Your task to perform on an android device: open app "Reddit" (install if not already installed), go to login, and select forgot password Image 0: 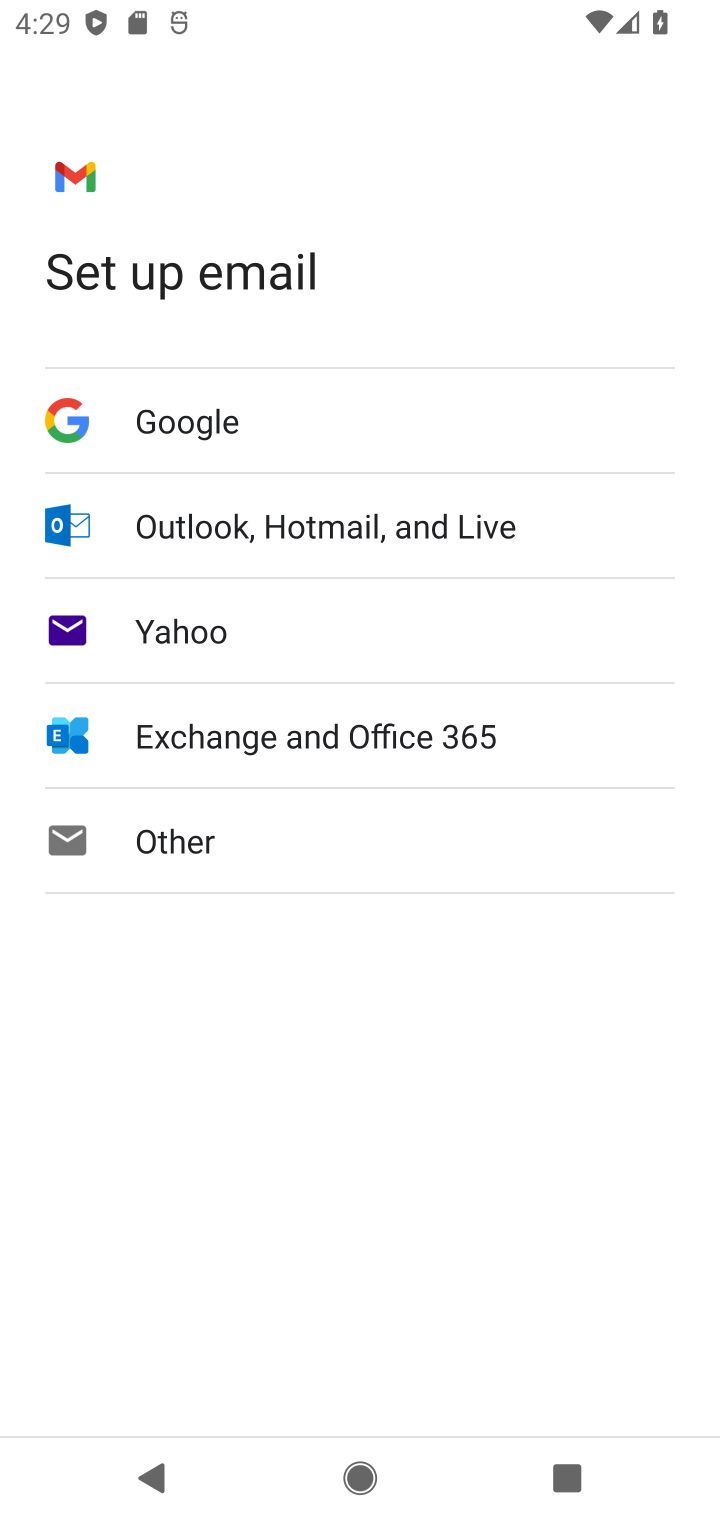
Step 0: press home button
Your task to perform on an android device: open app "Reddit" (install if not already installed), go to login, and select forgot password Image 1: 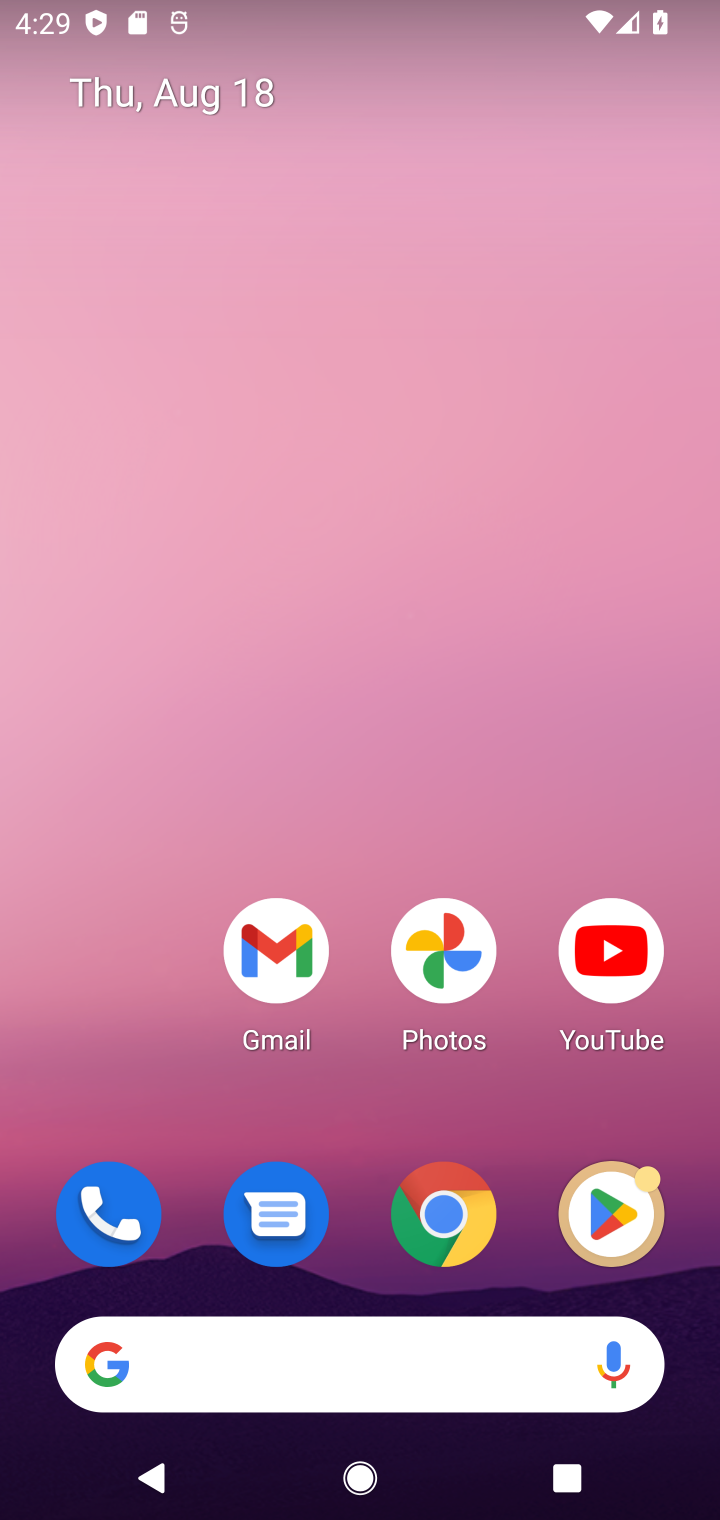
Step 1: drag from (318, 844) to (435, 152)
Your task to perform on an android device: open app "Reddit" (install if not already installed), go to login, and select forgot password Image 2: 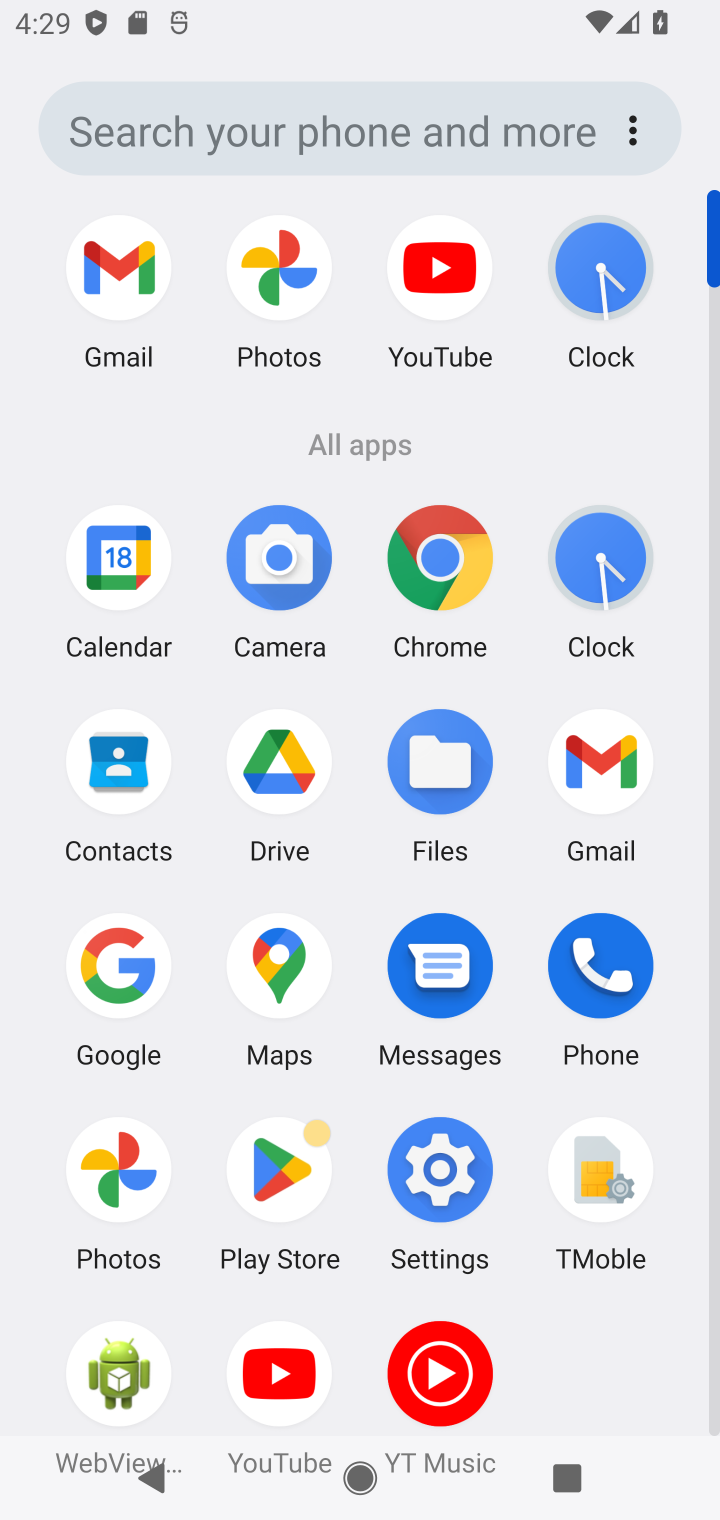
Step 2: click (296, 1200)
Your task to perform on an android device: open app "Reddit" (install if not already installed), go to login, and select forgot password Image 3: 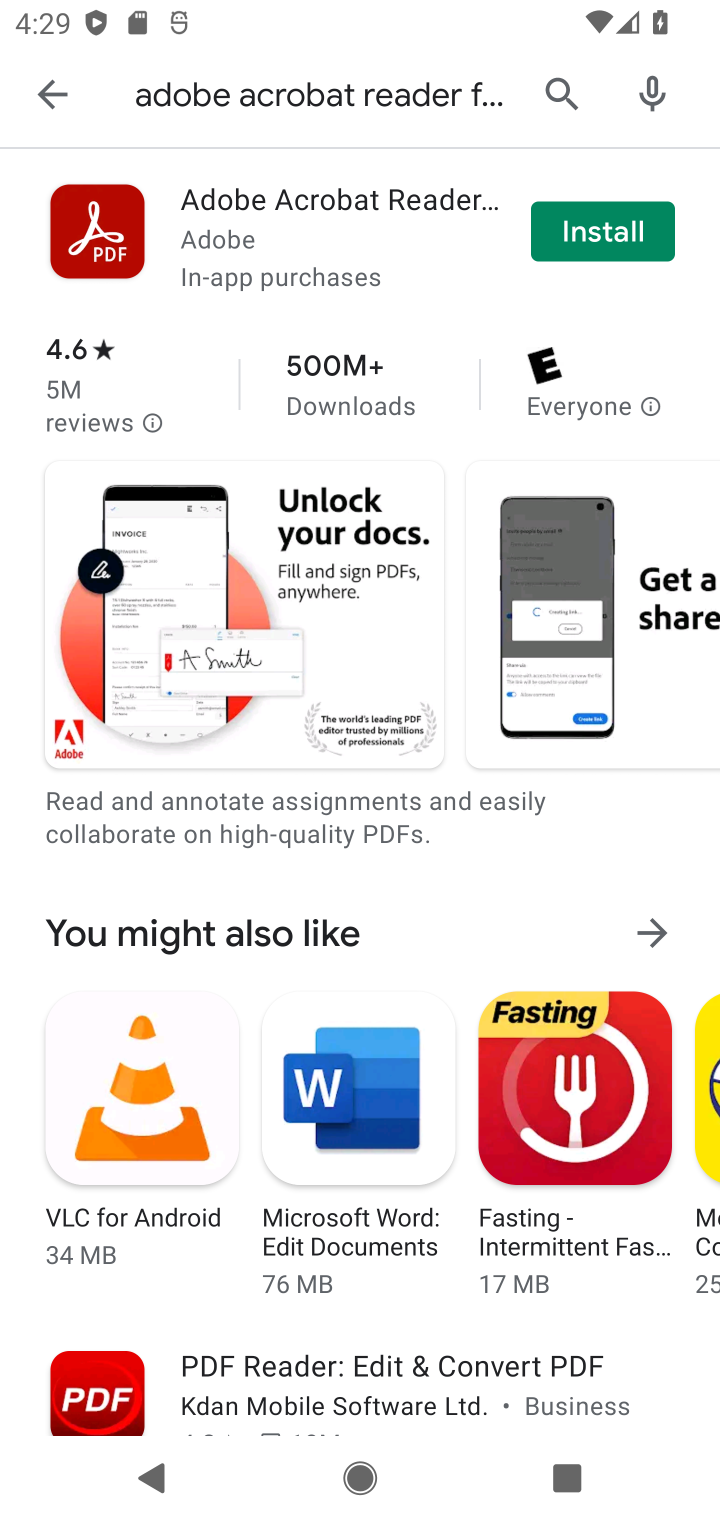
Step 3: click (301, 107)
Your task to perform on an android device: open app "Reddit" (install if not already installed), go to login, and select forgot password Image 4: 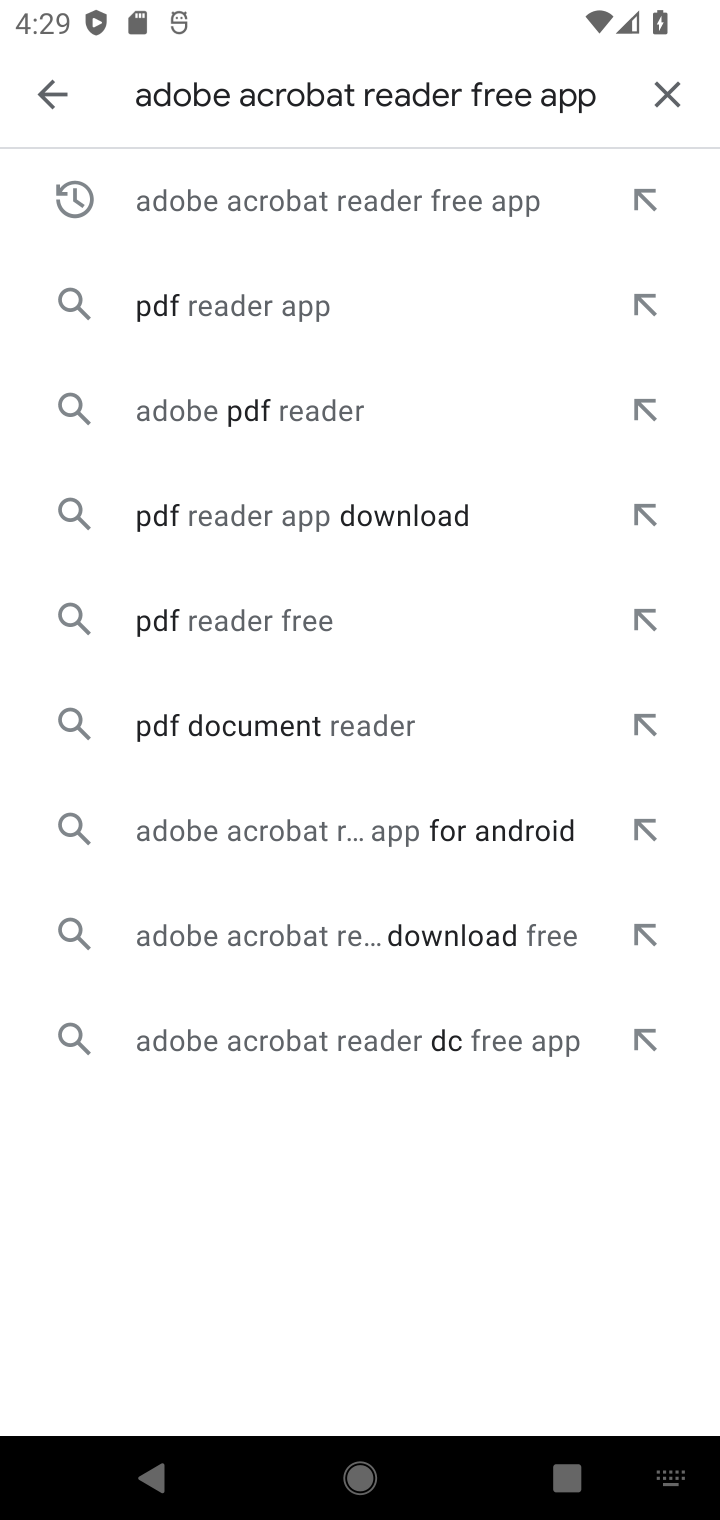
Step 4: click (660, 76)
Your task to perform on an android device: open app "Reddit" (install if not already installed), go to login, and select forgot password Image 5: 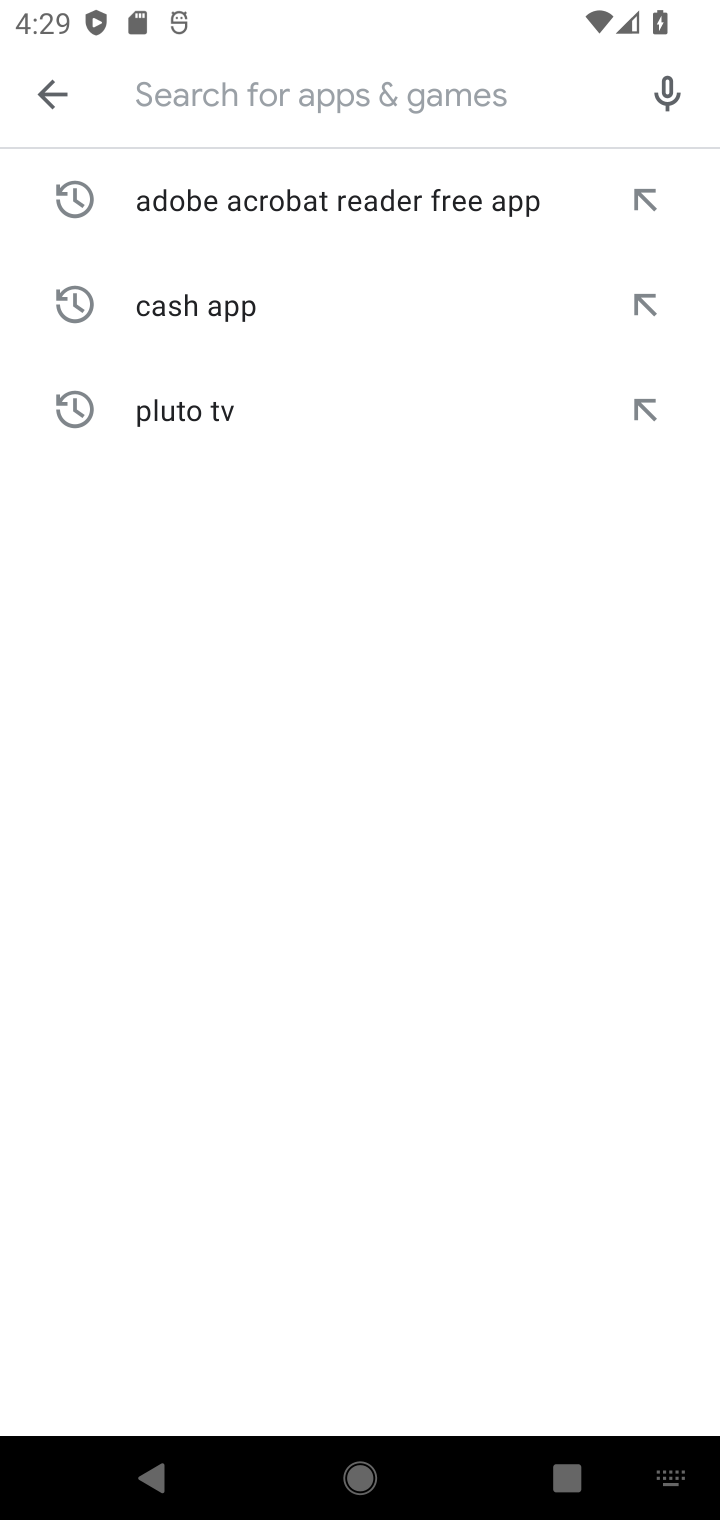
Step 5: type "reddit"
Your task to perform on an android device: open app "Reddit" (install if not already installed), go to login, and select forgot password Image 6: 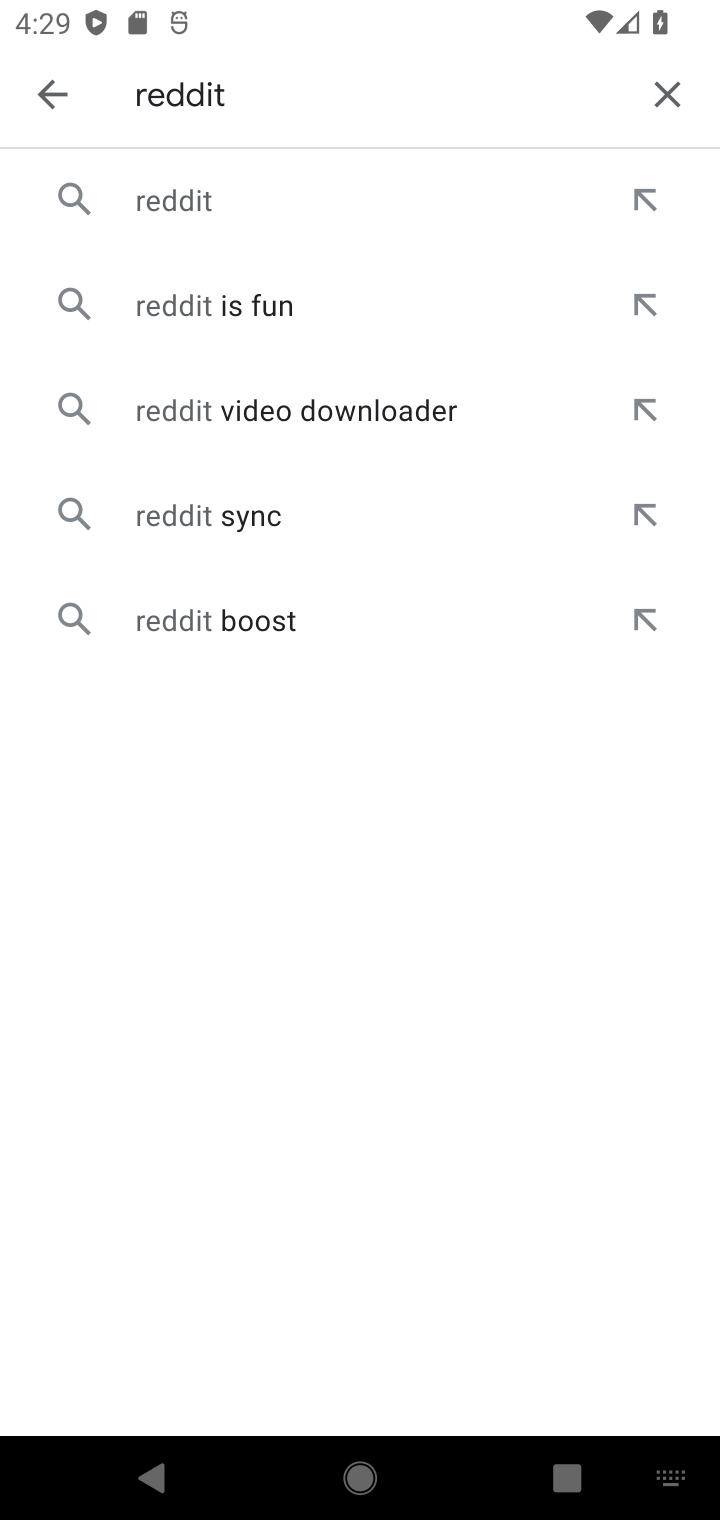
Step 6: click (219, 184)
Your task to perform on an android device: open app "Reddit" (install if not already installed), go to login, and select forgot password Image 7: 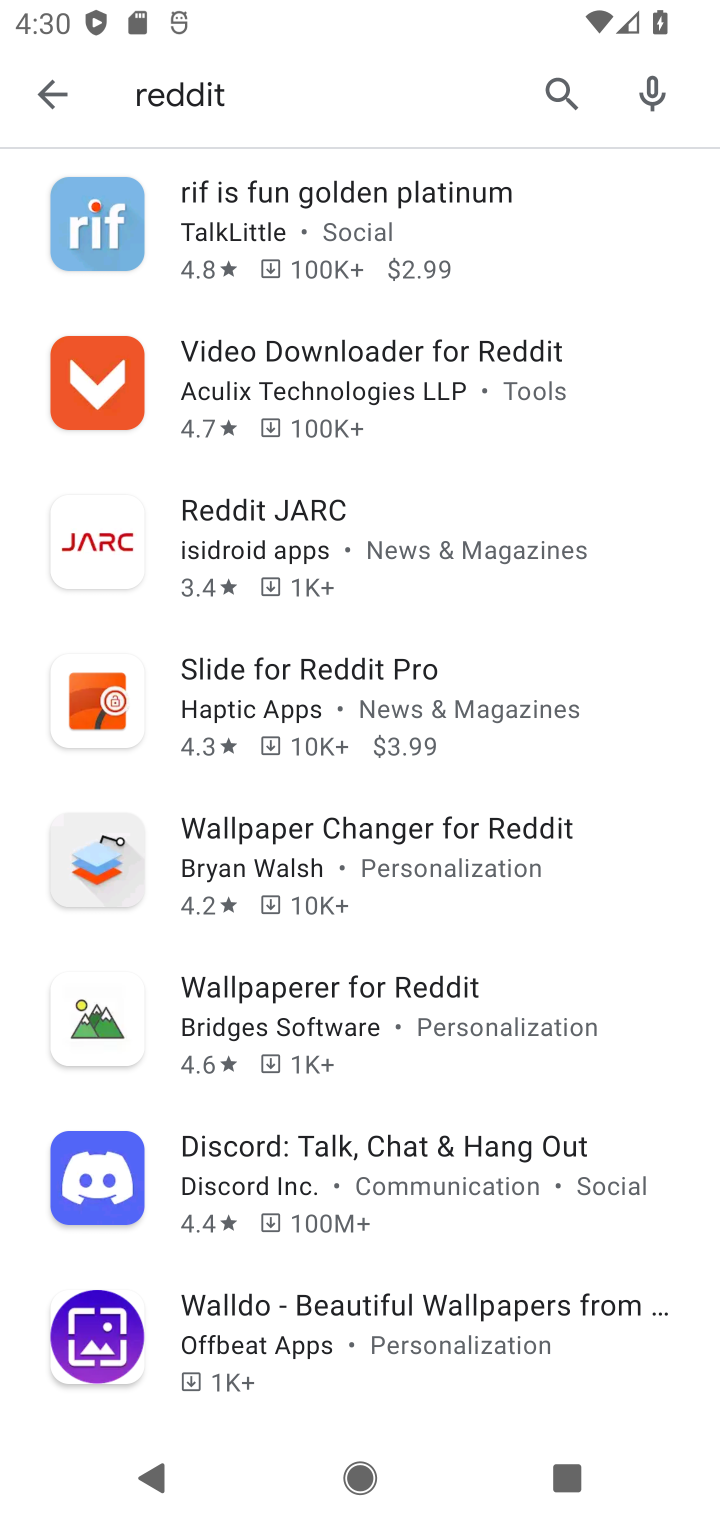
Step 7: task complete